Your task to perform on an android device: change text size in settings app Image 0: 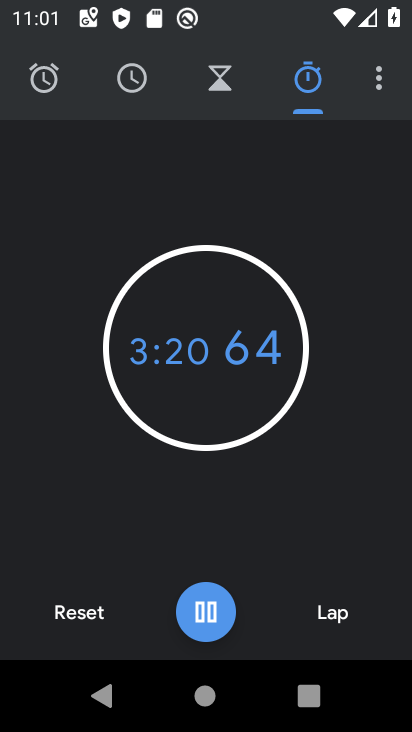
Step 0: press home button
Your task to perform on an android device: change text size in settings app Image 1: 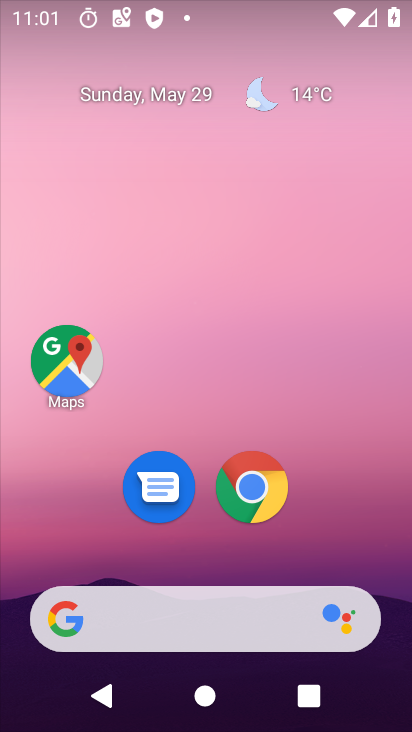
Step 1: drag from (388, 604) to (355, 160)
Your task to perform on an android device: change text size in settings app Image 2: 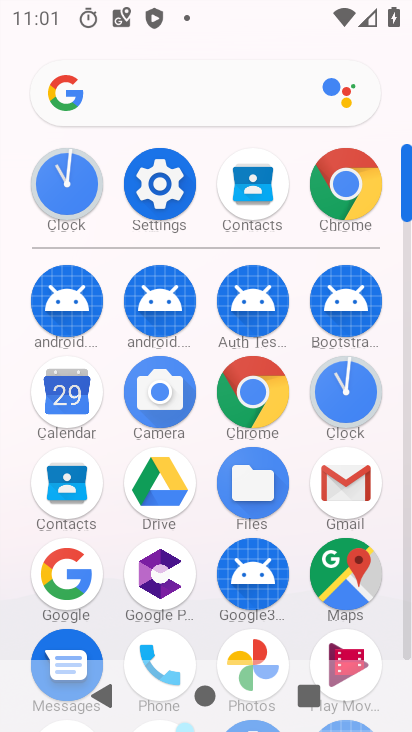
Step 2: click (165, 184)
Your task to perform on an android device: change text size in settings app Image 3: 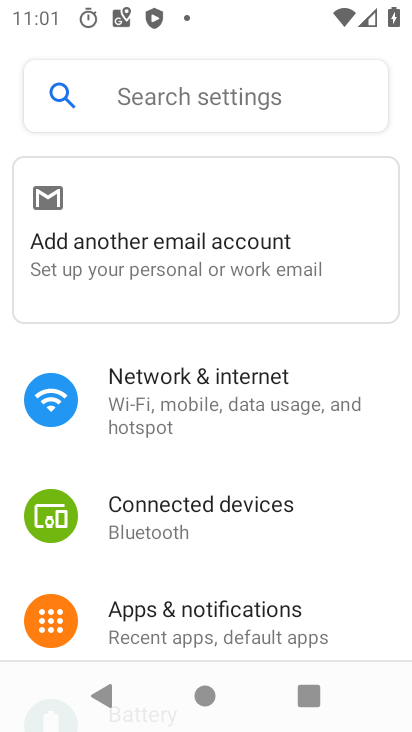
Step 3: drag from (376, 595) to (355, 293)
Your task to perform on an android device: change text size in settings app Image 4: 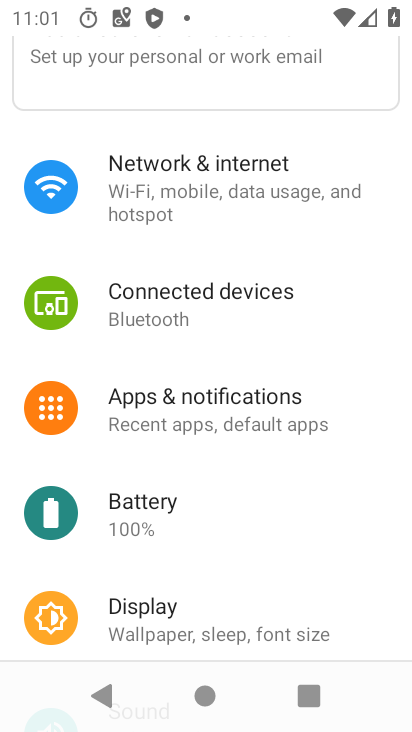
Step 4: click (177, 615)
Your task to perform on an android device: change text size in settings app Image 5: 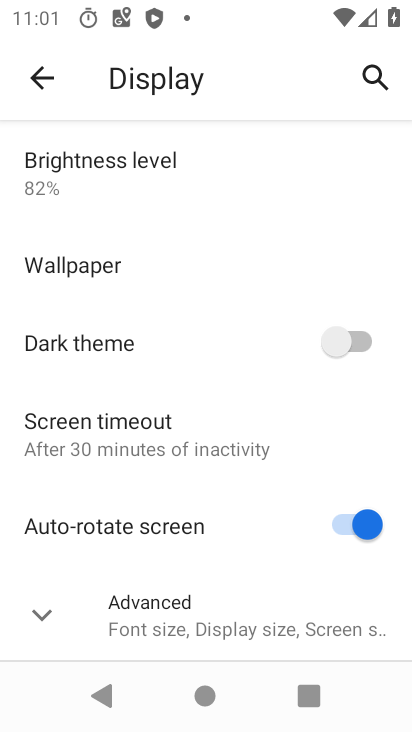
Step 5: click (50, 615)
Your task to perform on an android device: change text size in settings app Image 6: 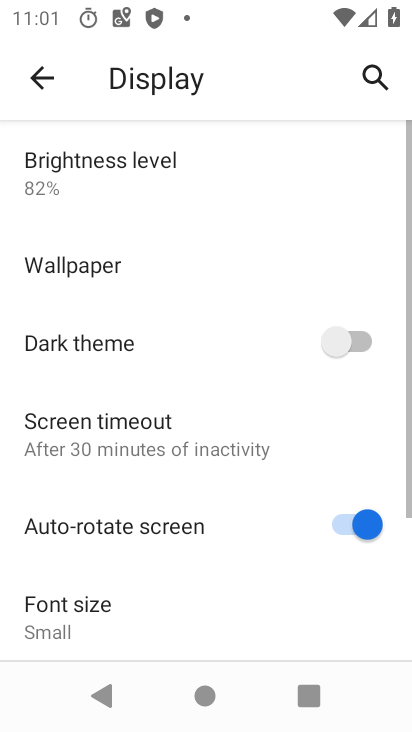
Step 6: drag from (251, 536) to (276, 212)
Your task to perform on an android device: change text size in settings app Image 7: 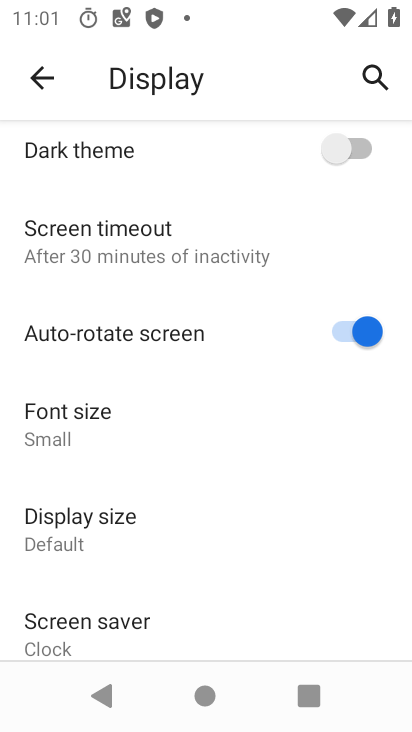
Step 7: click (62, 405)
Your task to perform on an android device: change text size in settings app Image 8: 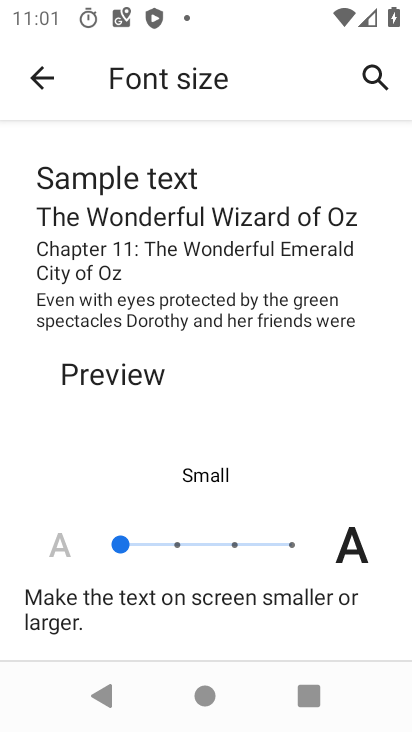
Step 8: click (173, 542)
Your task to perform on an android device: change text size in settings app Image 9: 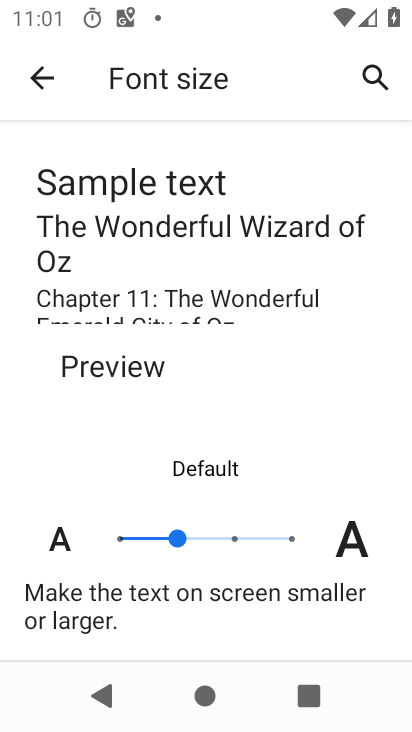
Step 9: task complete